Your task to perform on an android device: Do I have any events tomorrow? Image 0: 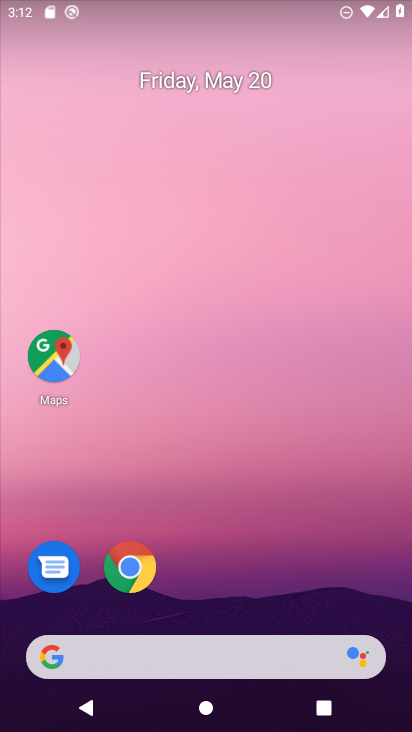
Step 0: drag from (181, 722) to (192, 9)
Your task to perform on an android device: Do I have any events tomorrow? Image 1: 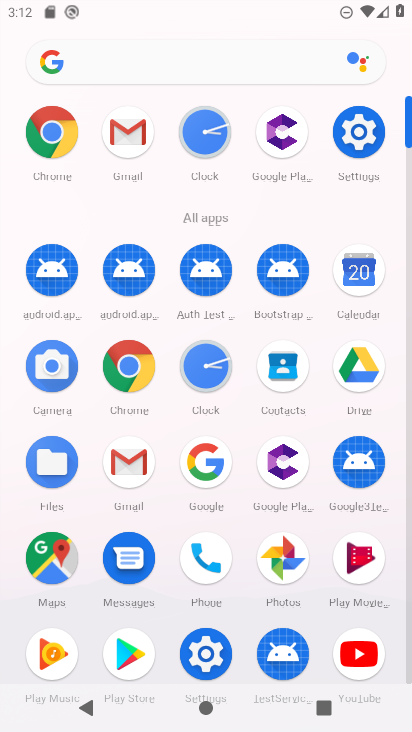
Step 1: click (358, 274)
Your task to perform on an android device: Do I have any events tomorrow? Image 2: 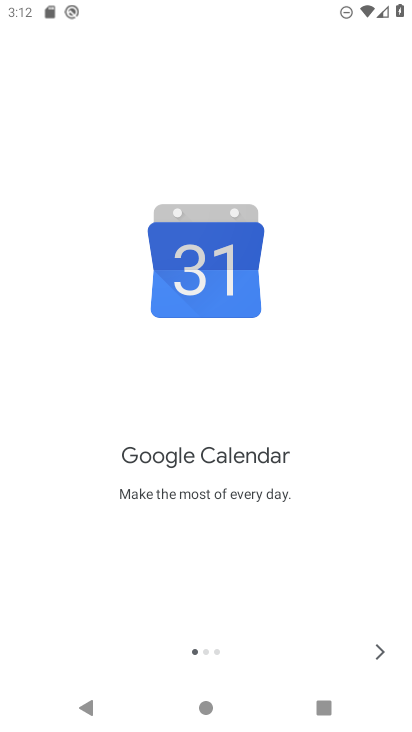
Step 2: click (377, 650)
Your task to perform on an android device: Do I have any events tomorrow? Image 3: 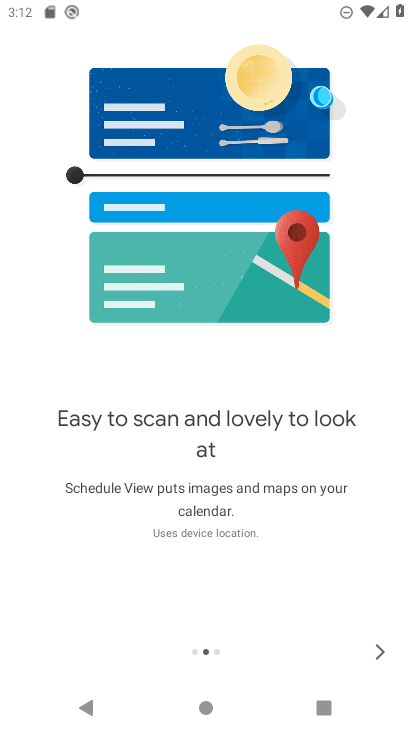
Step 3: click (376, 650)
Your task to perform on an android device: Do I have any events tomorrow? Image 4: 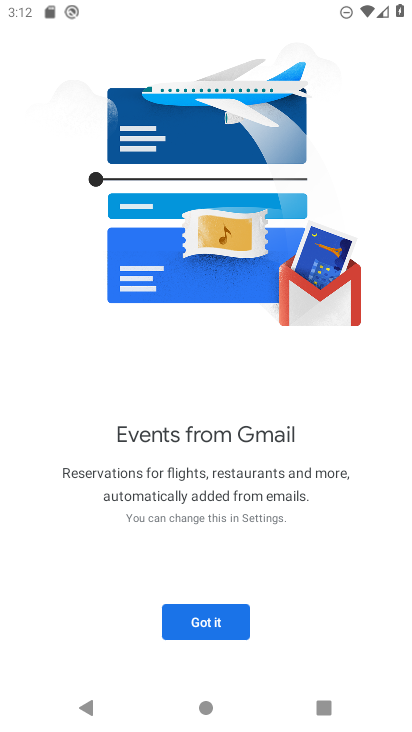
Step 4: click (217, 623)
Your task to perform on an android device: Do I have any events tomorrow? Image 5: 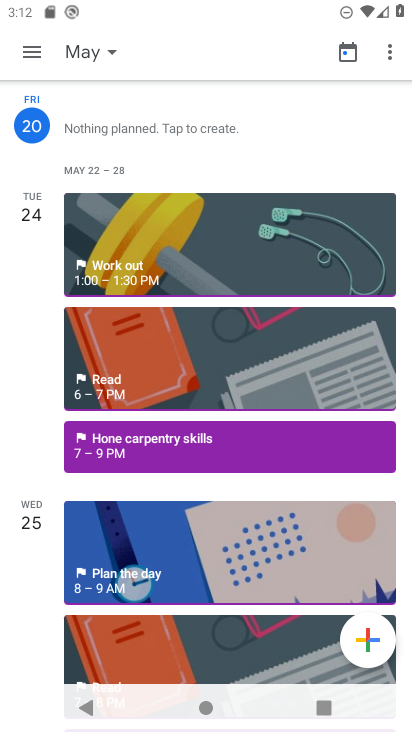
Step 5: click (99, 50)
Your task to perform on an android device: Do I have any events tomorrow? Image 6: 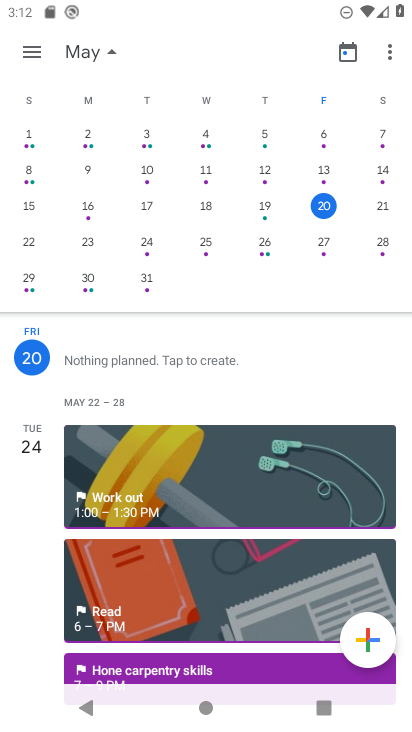
Step 6: click (381, 203)
Your task to perform on an android device: Do I have any events tomorrow? Image 7: 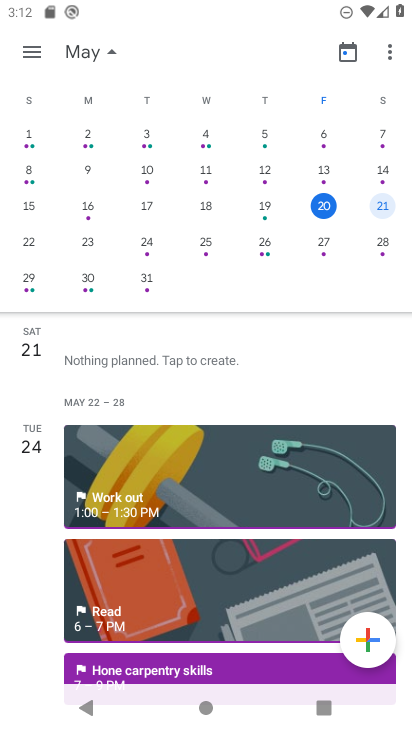
Step 7: click (380, 204)
Your task to perform on an android device: Do I have any events tomorrow? Image 8: 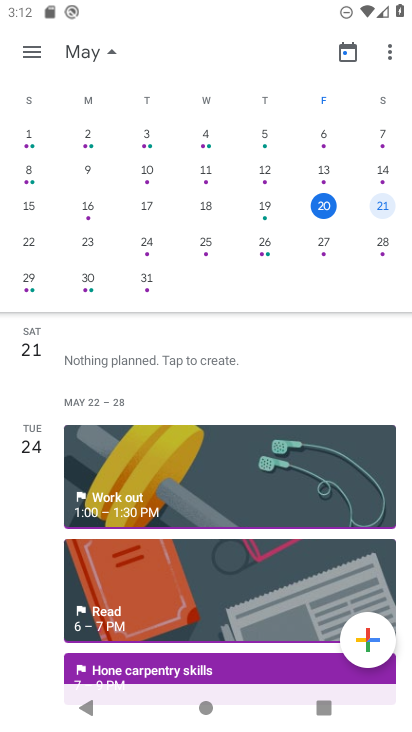
Step 8: click (107, 47)
Your task to perform on an android device: Do I have any events tomorrow? Image 9: 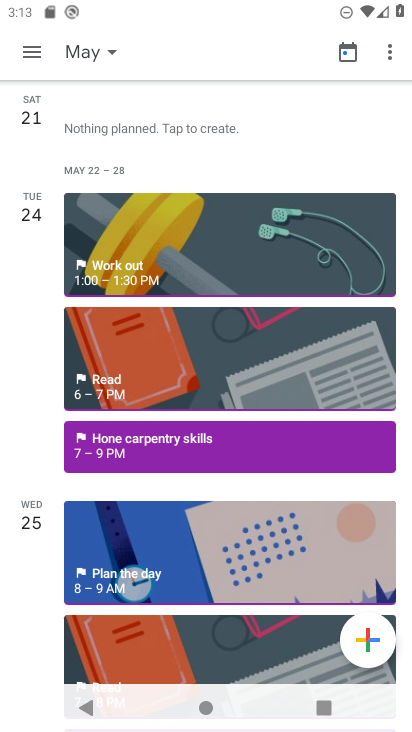
Step 9: task complete